Your task to perform on an android device: turn on showing notifications on the lock screen Image 0: 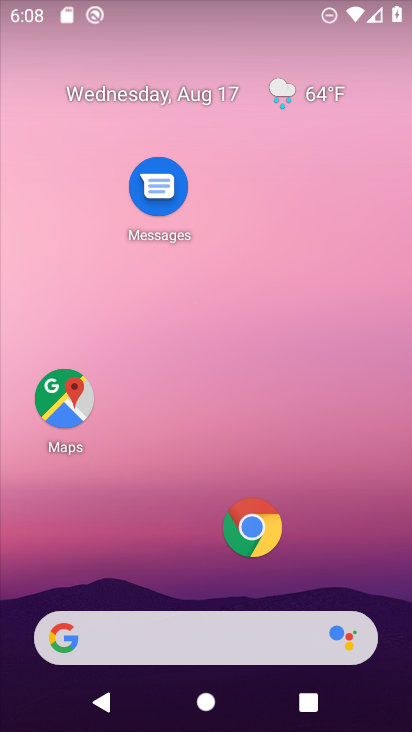
Step 0: drag from (154, 613) to (154, 114)
Your task to perform on an android device: turn on showing notifications on the lock screen Image 1: 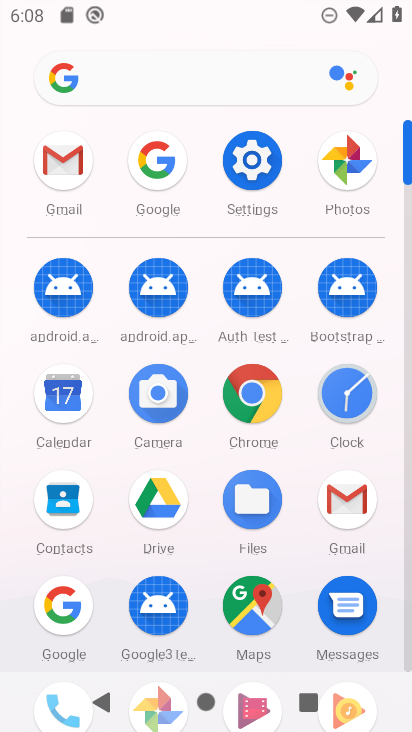
Step 1: click (250, 158)
Your task to perform on an android device: turn on showing notifications on the lock screen Image 2: 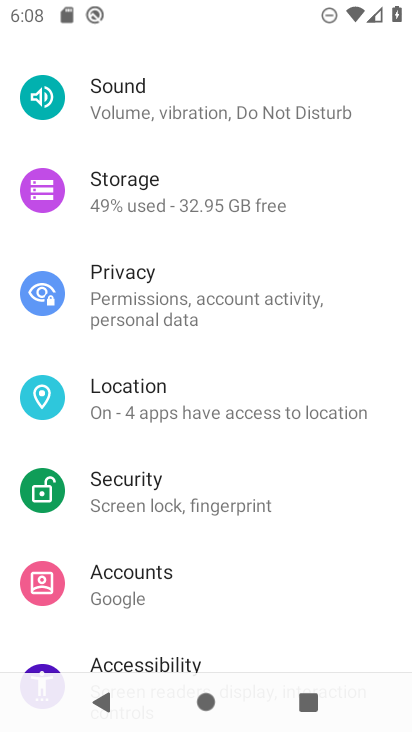
Step 2: click (109, 313)
Your task to perform on an android device: turn on showing notifications on the lock screen Image 3: 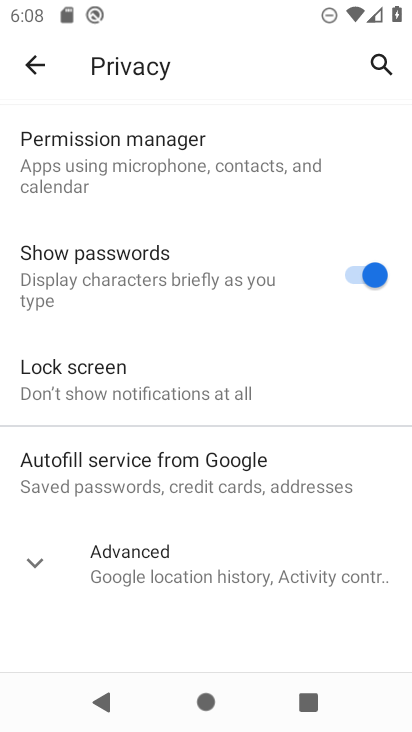
Step 3: click (97, 383)
Your task to perform on an android device: turn on showing notifications on the lock screen Image 4: 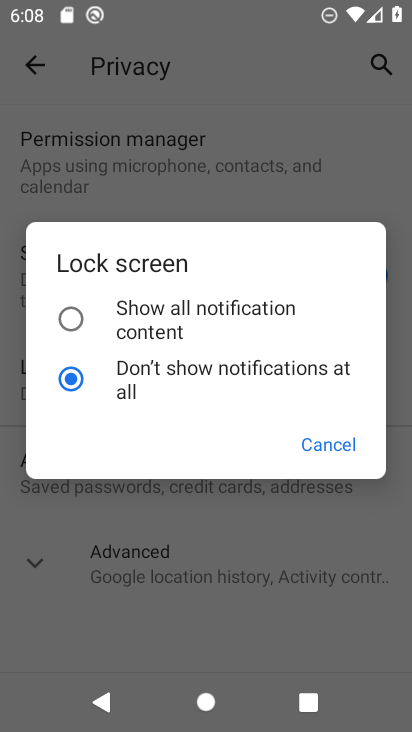
Step 4: click (135, 324)
Your task to perform on an android device: turn on showing notifications on the lock screen Image 5: 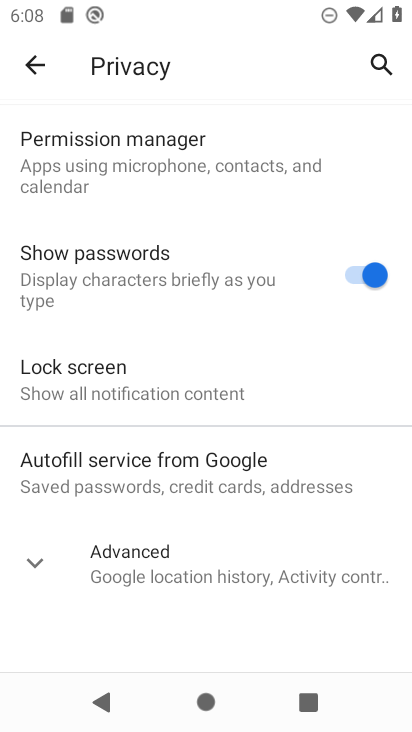
Step 5: task complete